Your task to perform on an android device: Search for seafood restaurants on Google Maps Image 0: 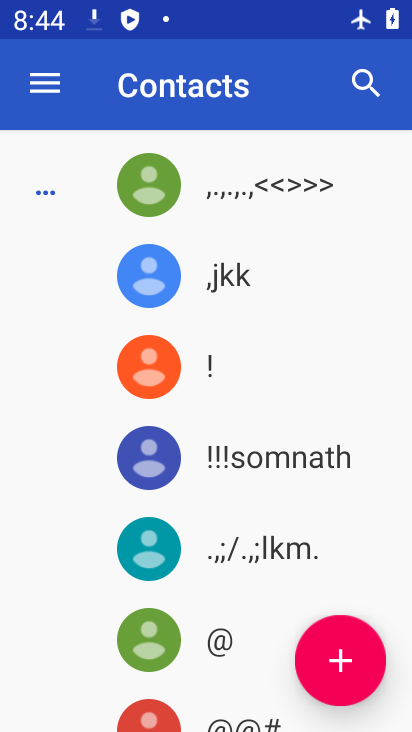
Step 0: press home button
Your task to perform on an android device: Search for seafood restaurants on Google Maps Image 1: 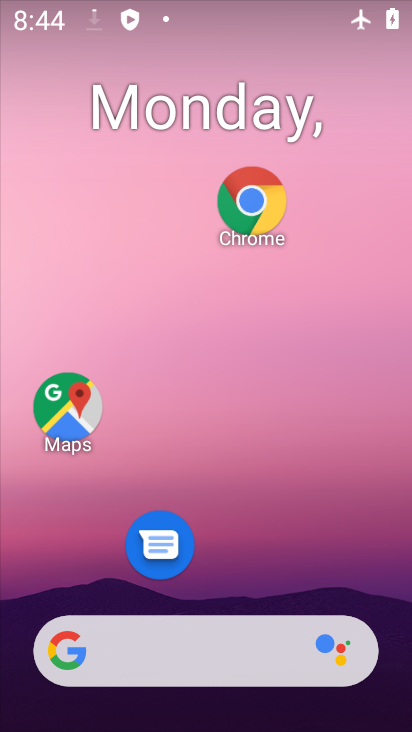
Step 1: click (42, 379)
Your task to perform on an android device: Search for seafood restaurants on Google Maps Image 2: 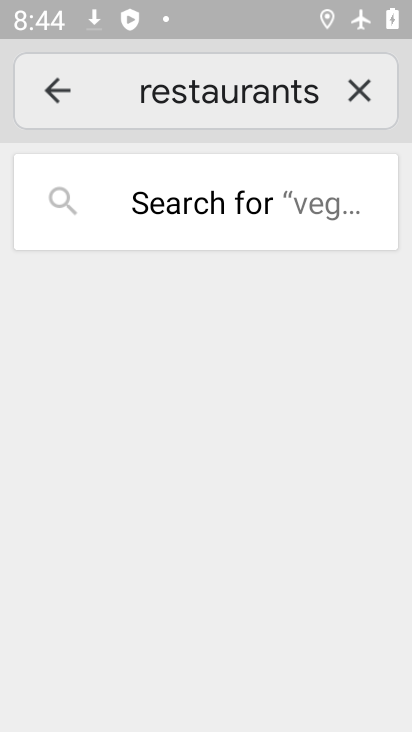
Step 2: click (353, 82)
Your task to perform on an android device: Search for seafood restaurants on Google Maps Image 3: 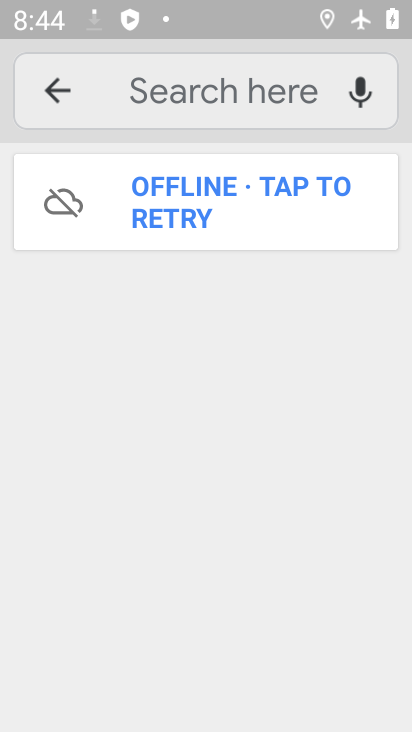
Step 3: click (158, 93)
Your task to perform on an android device: Search for seafood restaurants on Google Maps Image 4: 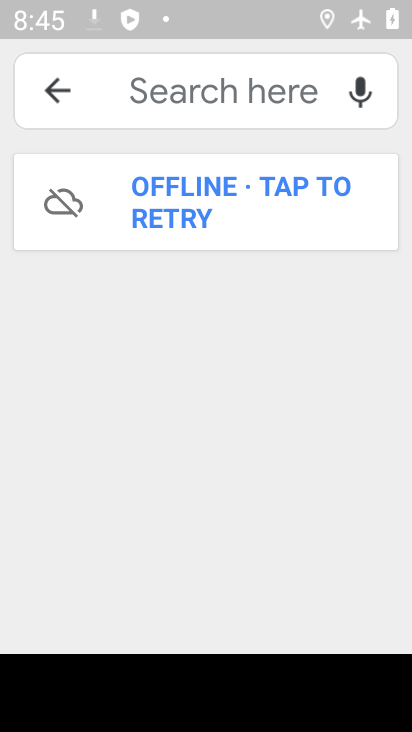
Step 4: type "seafood restaurants"
Your task to perform on an android device: Search for seafood restaurants on Google Maps Image 5: 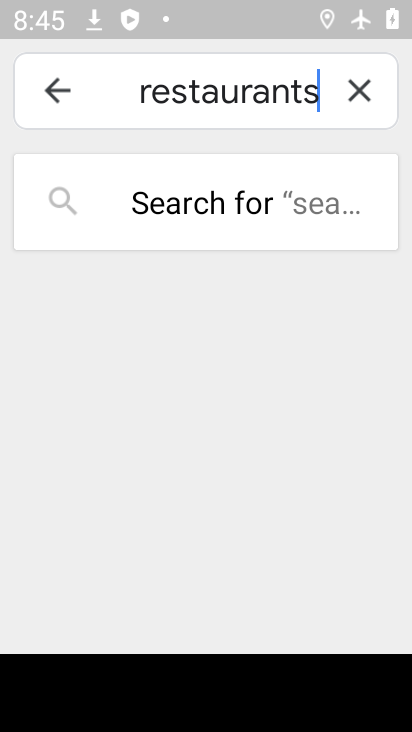
Step 5: click (317, 86)
Your task to perform on an android device: Search for seafood restaurants on Google Maps Image 6: 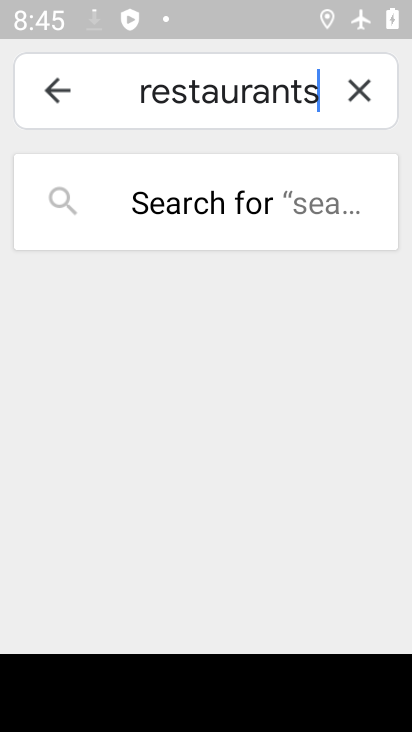
Step 6: task complete